Your task to perform on an android device: turn off airplane mode Image 0: 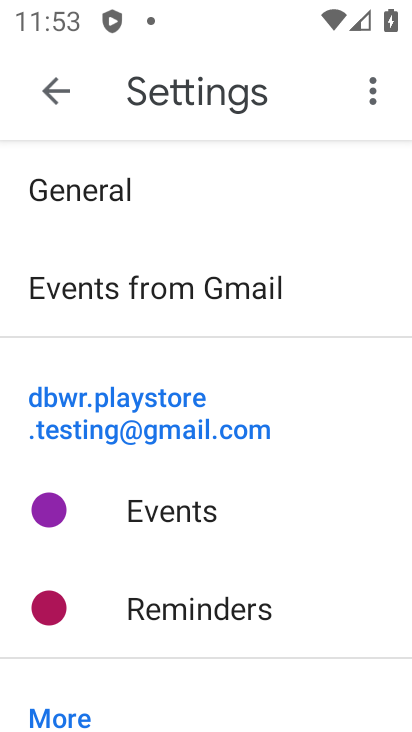
Step 0: press home button
Your task to perform on an android device: turn off airplane mode Image 1: 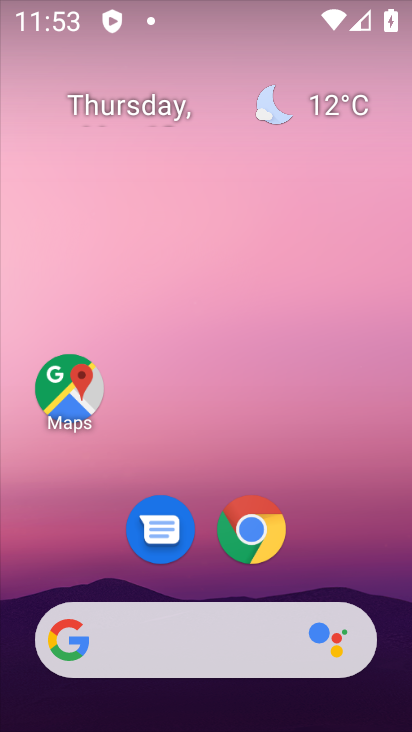
Step 1: drag from (321, 539) to (308, 146)
Your task to perform on an android device: turn off airplane mode Image 2: 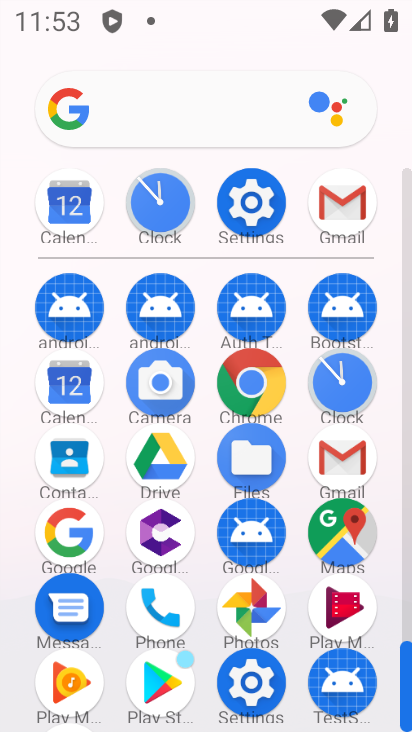
Step 2: click (238, 182)
Your task to perform on an android device: turn off airplane mode Image 3: 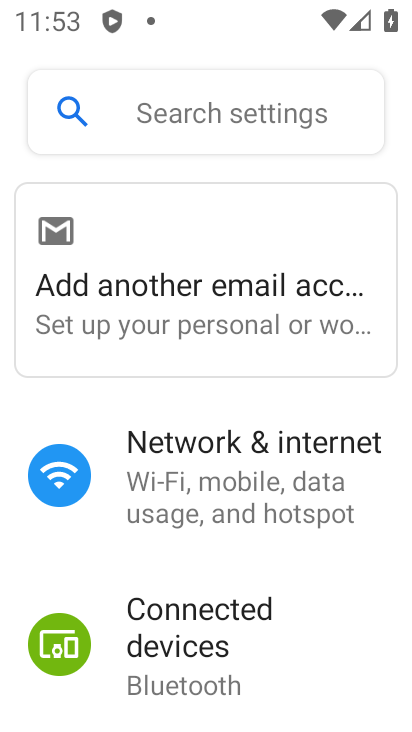
Step 3: click (204, 472)
Your task to perform on an android device: turn off airplane mode Image 4: 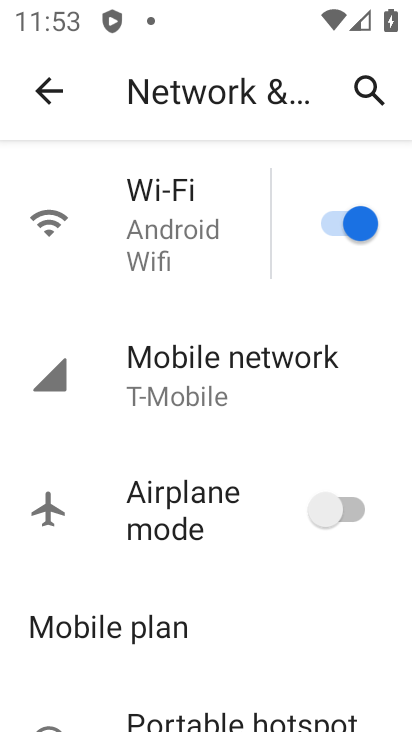
Step 4: task complete